Your task to perform on an android device: toggle improve location accuracy Image 0: 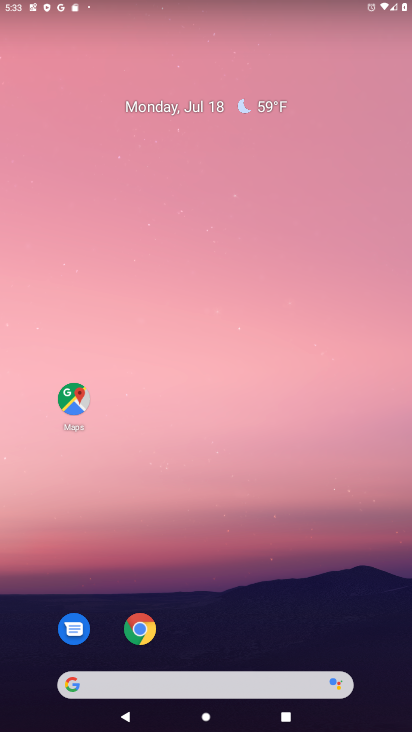
Step 0: drag from (288, 601) to (243, 137)
Your task to perform on an android device: toggle improve location accuracy Image 1: 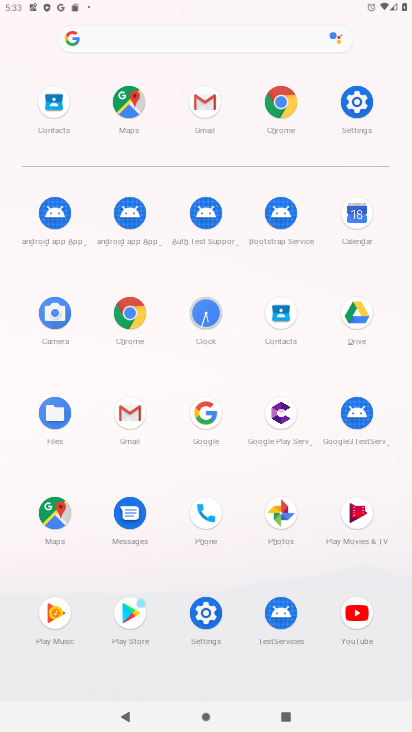
Step 1: click (359, 104)
Your task to perform on an android device: toggle improve location accuracy Image 2: 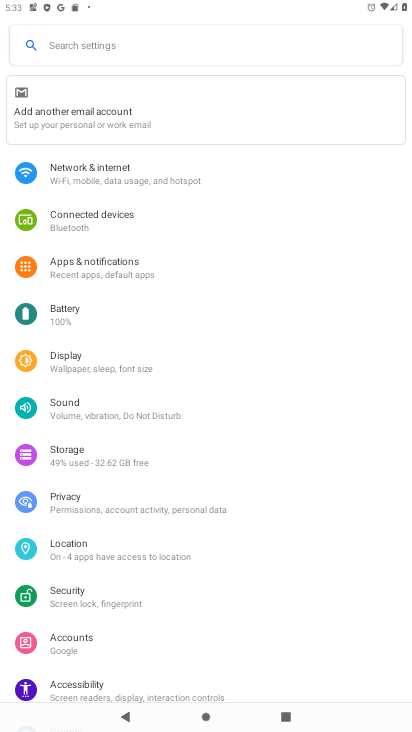
Step 2: click (114, 551)
Your task to perform on an android device: toggle improve location accuracy Image 3: 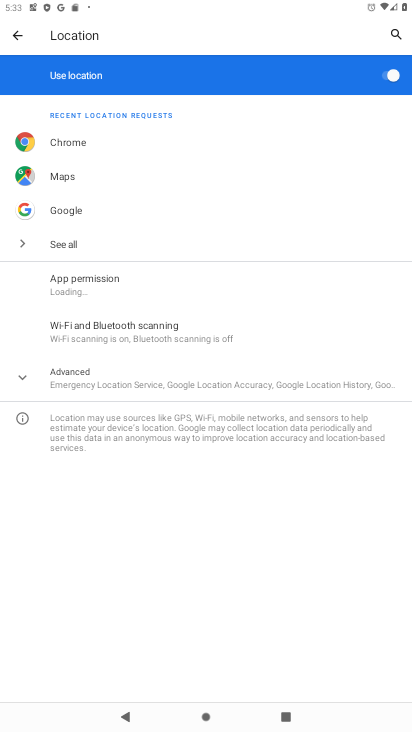
Step 3: click (138, 386)
Your task to perform on an android device: toggle improve location accuracy Image 4: 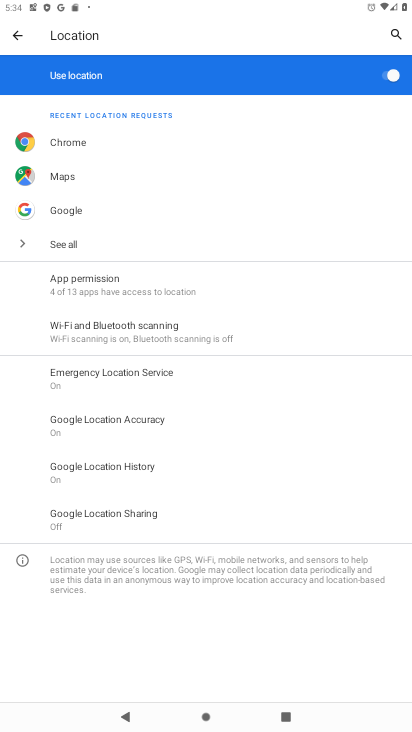
Step 4: click (149, 422)
Your task to perform on an android device: toggle improve location accuracy Image 5: 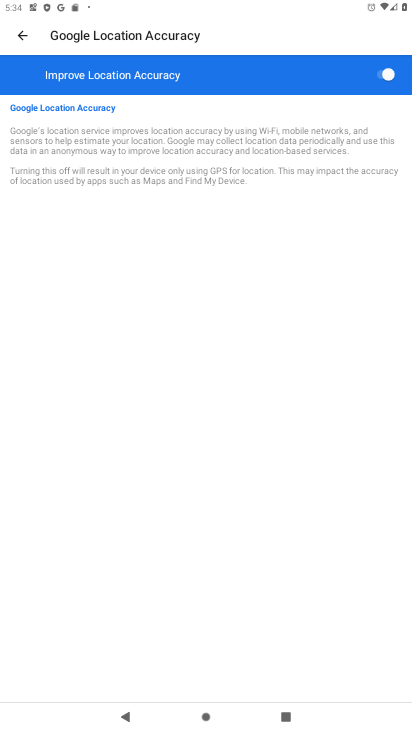
Step 5: click (381, 73)
Your task to perform on an android device: toggle improve location accuracy Image 6: 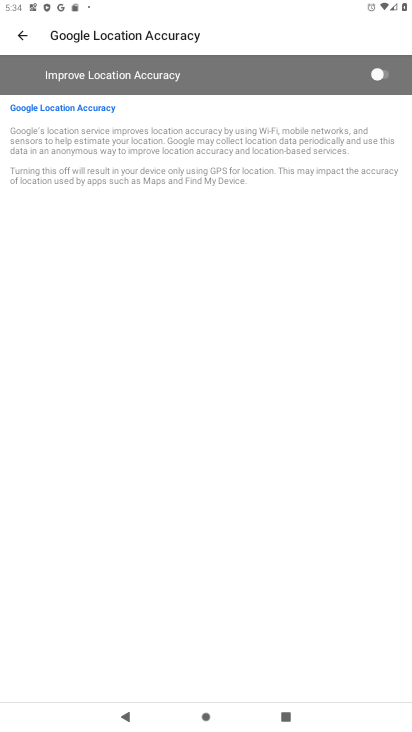
Step 6: task complete